Your task to perform on an android device: Search for flights from Zurich to Helsinki Image 0: 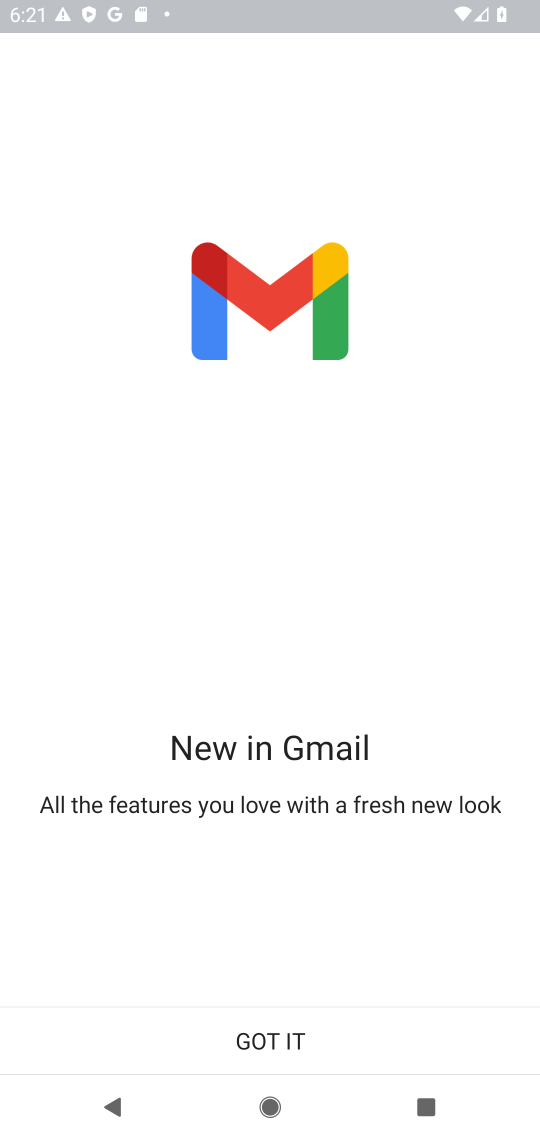
Step 0: press home button
Your task to perform on an android device: Search for flights from Zurich to Helsinki Image 1: 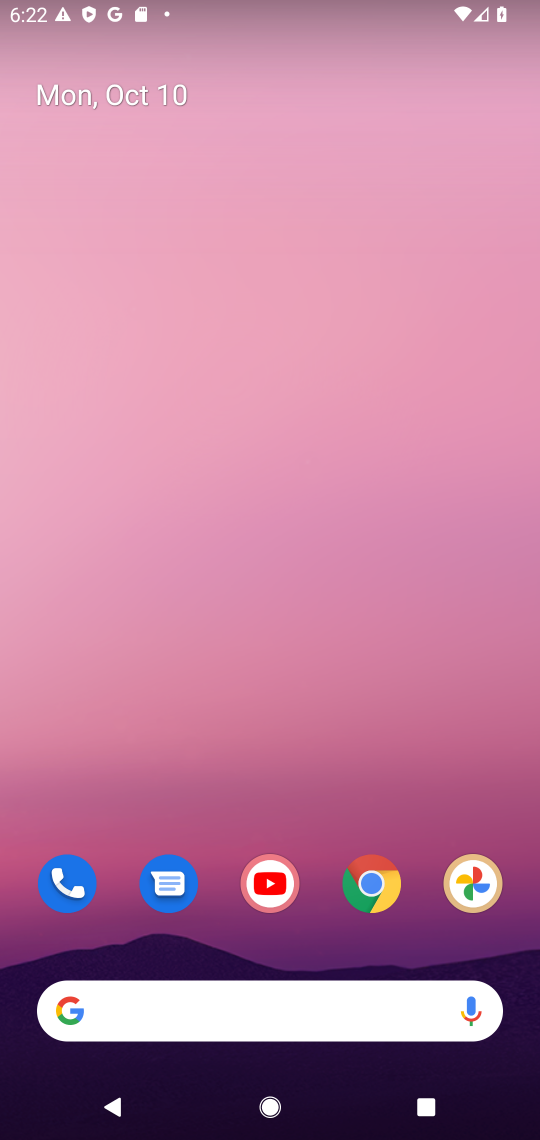
Step 1: drag from (308, 706) to (303, 333)
Your task to perform on an android device: Search for flights from Zurich to Helsinki Image 2: 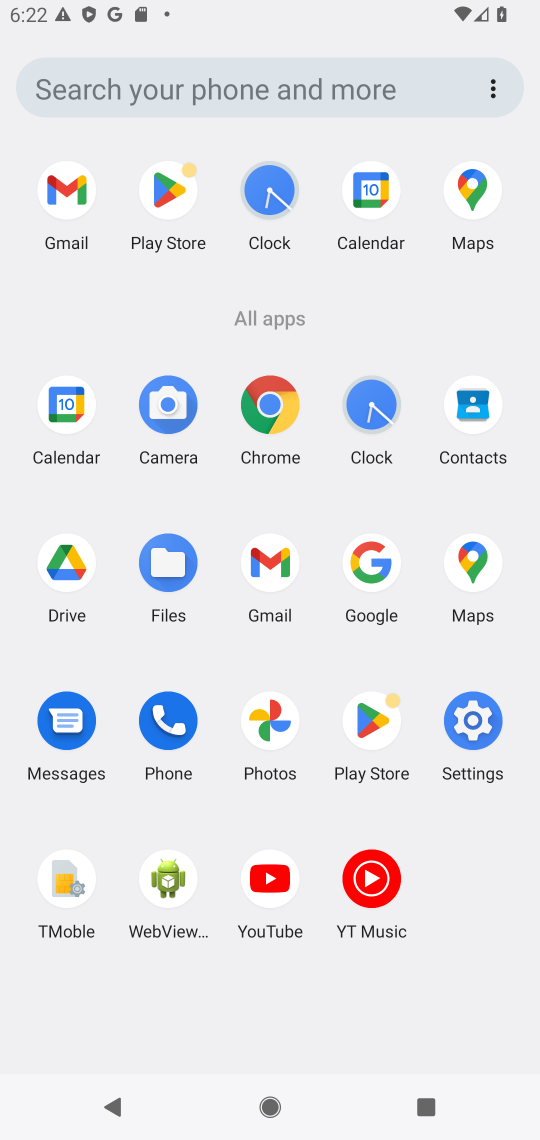
Step 2: click (373, 587)
Your task to perform on an android device: Search for flights from Zurich to Helsinki Image 3: 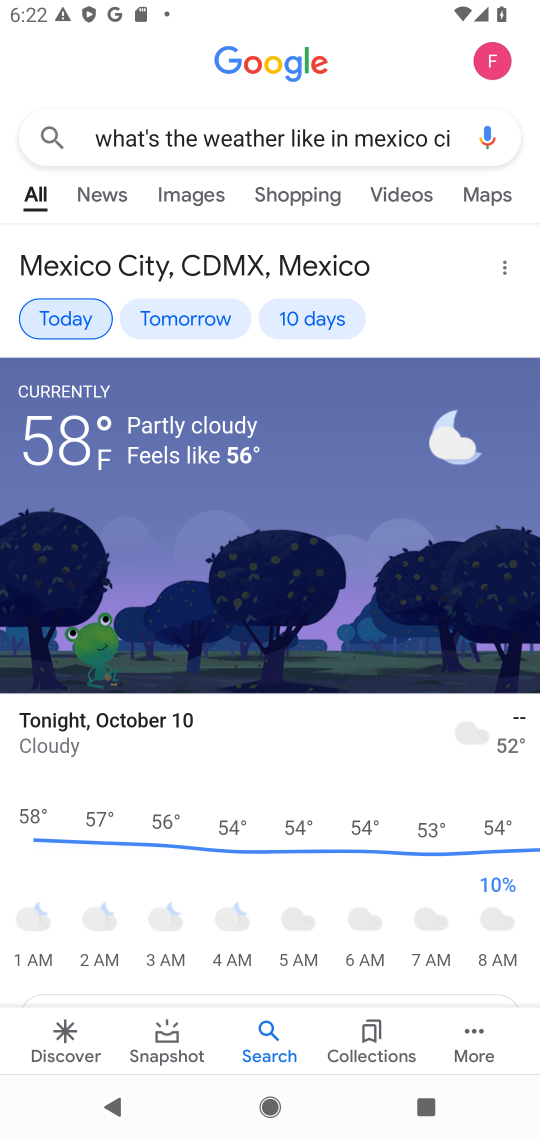
Step 3: click (346, 132)
Your task to perform on an android device: Search for flights from Zurich to Helsinki Image 4: 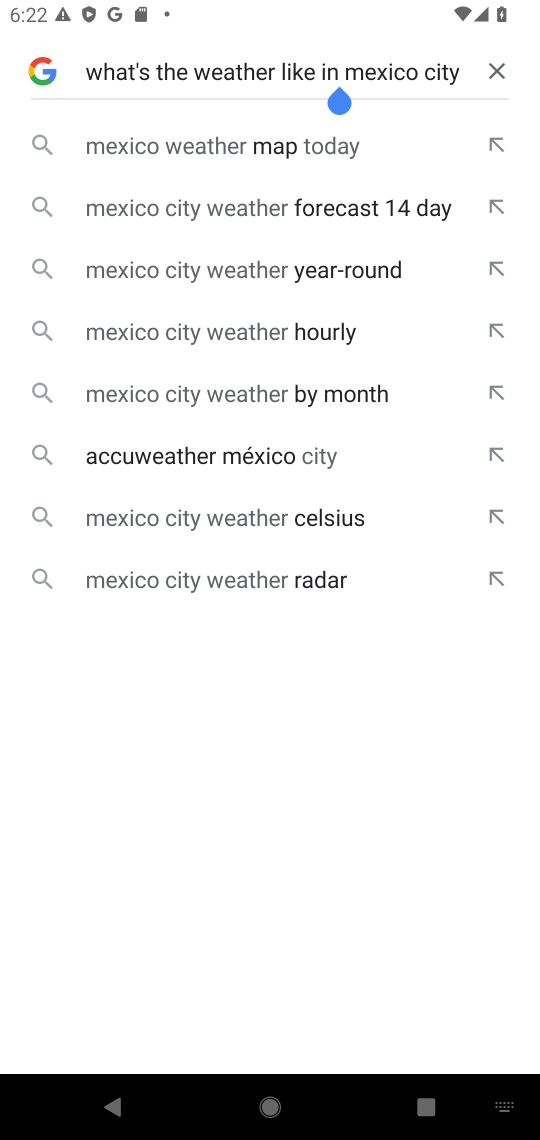
Step 4: click (496, 71)
Your task to perform on an android device: Search for flights from Zurich to Helsinki Image 5: 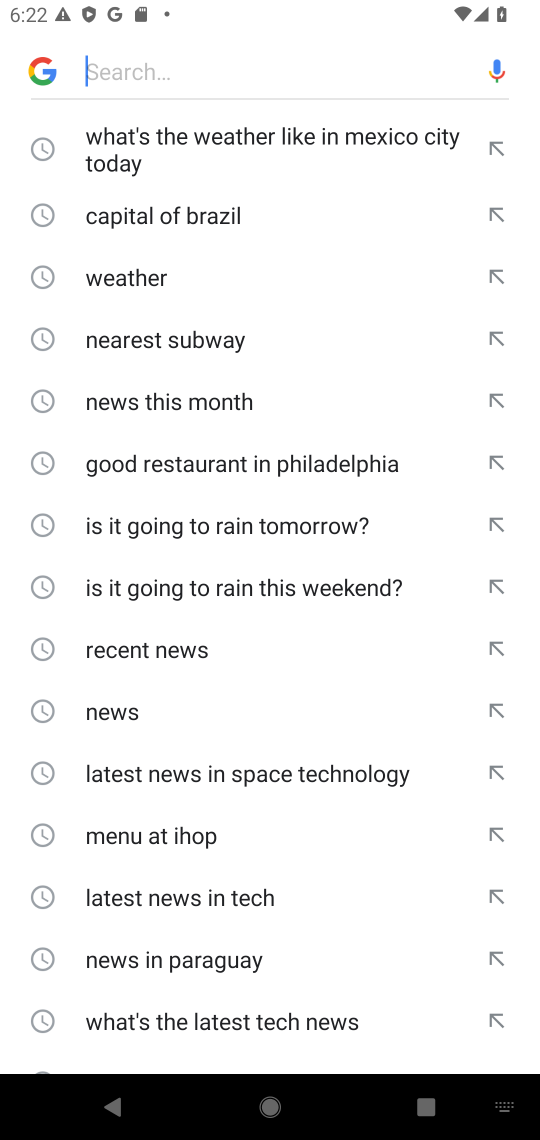
Step 5: type "Zurich to Helsinki"
Your task to perform on an android device: Search for flights from Zurich to Helsinki Image 6: 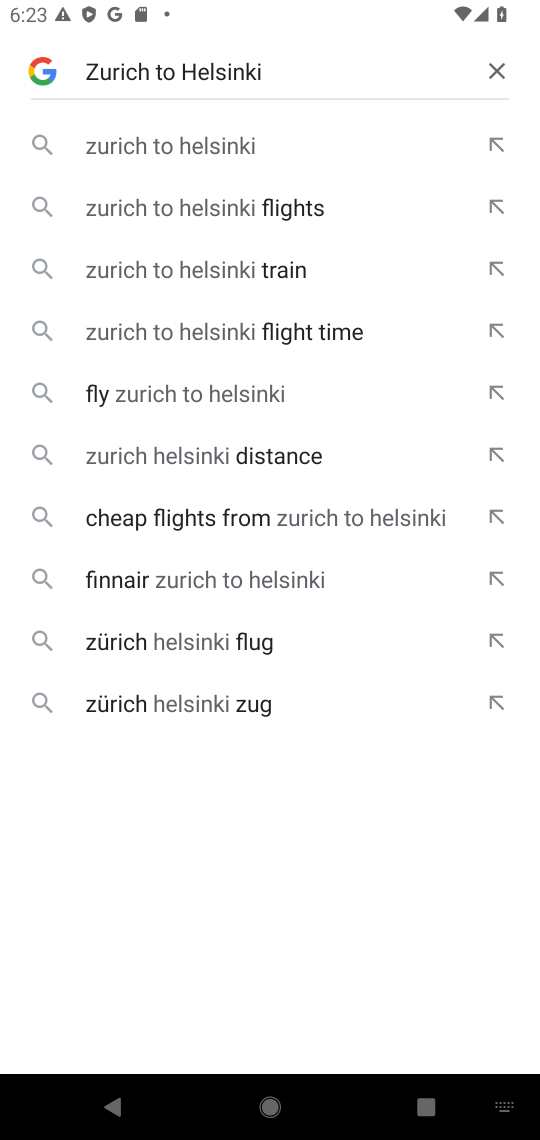
Step 6: click (501, 69)
Your task to perform on an android device: Search for flights from Zurich to Helsinki Image 7: 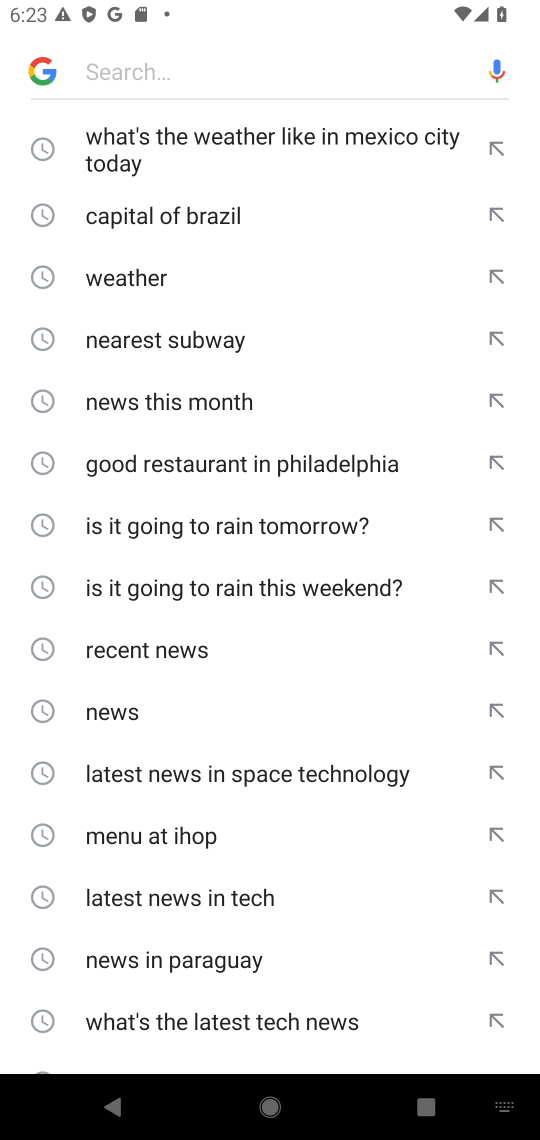
Step 7: type "flights from Zurich to Helsinki"
Your task to perform on an android device: Search for flights from Zurich to Helsinki Image 8: 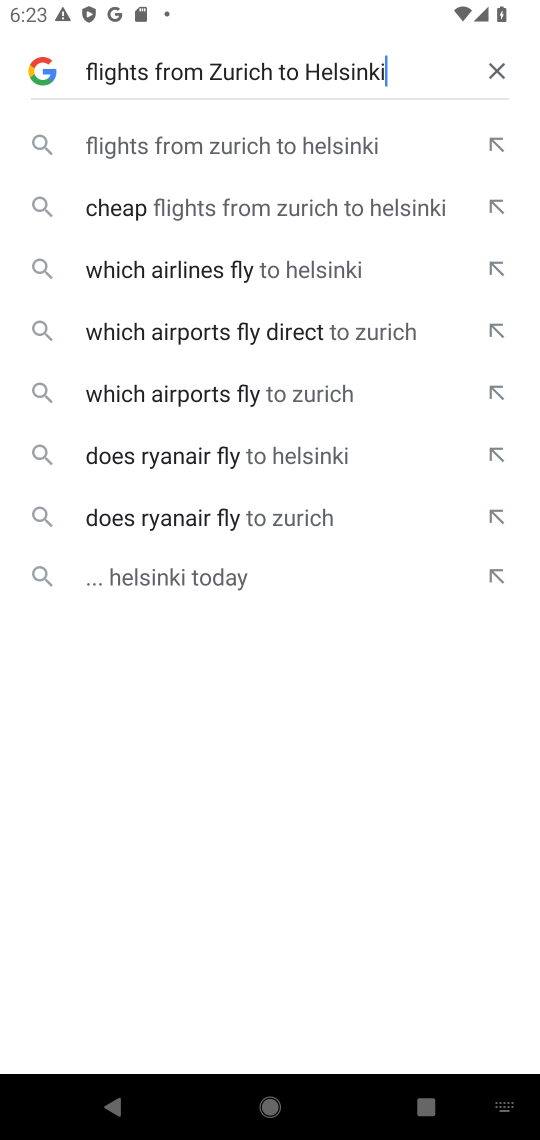
Step 8: click (336, 148)
Your task to perform on an android device: Search for flights from Zurich to Helsinki Image 9: 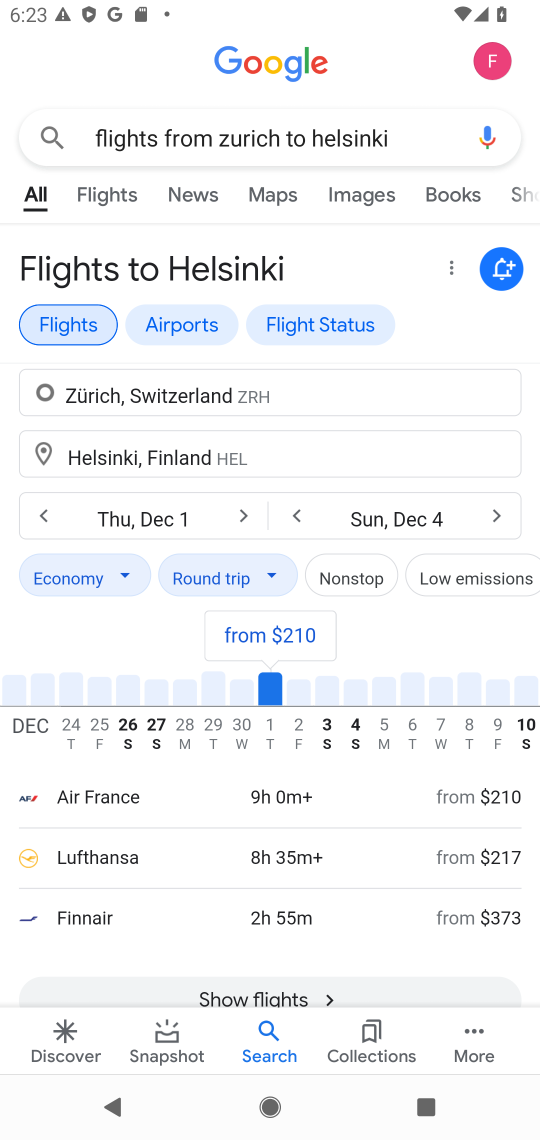
Step 9: task complete